Your task to perform on an android device: Turn off the flashlight Image 0: 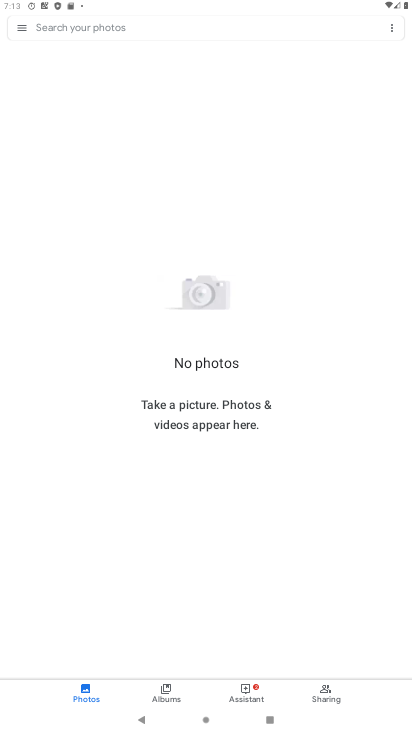
Step 0: press home button
Your task to perform on an android device: Turn off the flashlight Image 1: 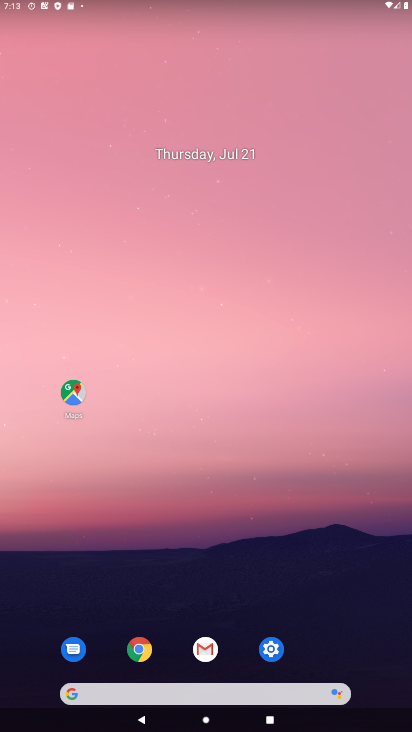
Step 1: click (253, 651)
Your task to perform on an android device: Turn off the flashlight Image 2: 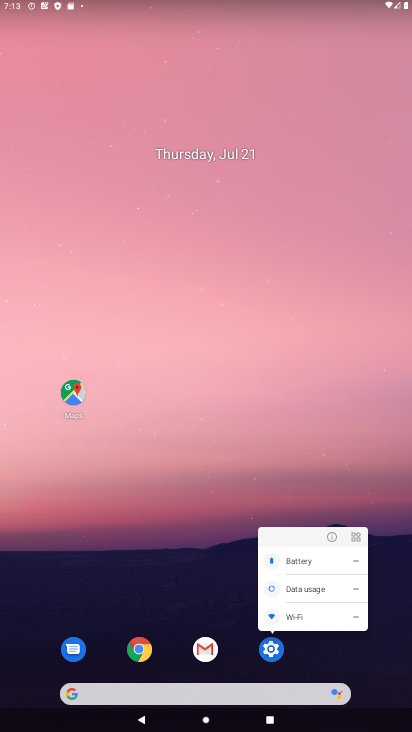
Step 2: click (270, 649)
Your task to perform on an android device: Turn off the flashlight Image 3: 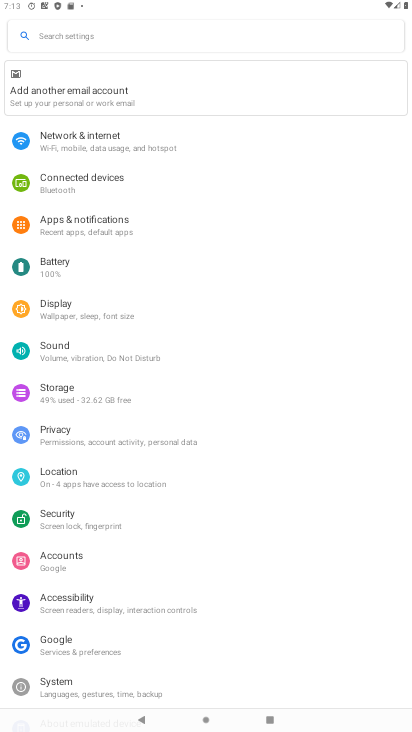
Step 3: click (62, 39)
Your task to perform on an android device: Turn off the flashlight Image 4: 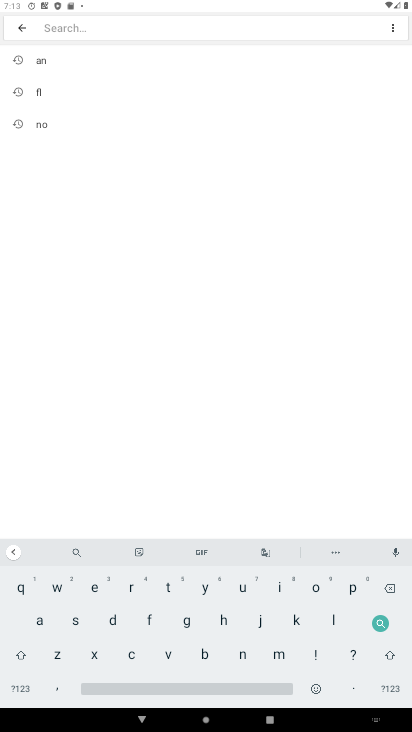
Step 4: click (147, 623)
Your task to perform on an android device: Turn off the flashlight Image 5: 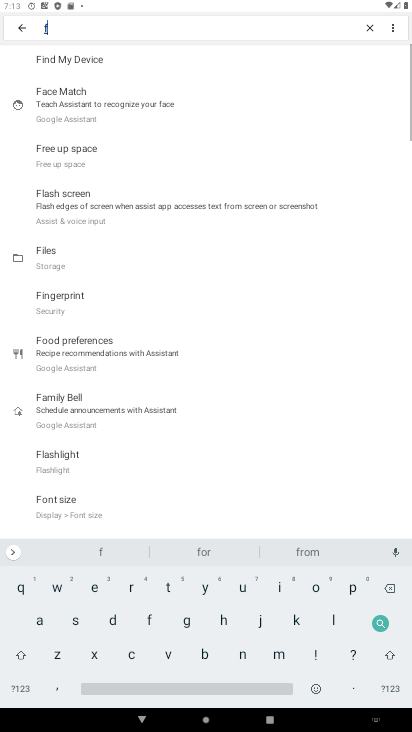
Step 5: click (339, 614)
Your task to perform on an android device: Turn off the flashlight Image 6: 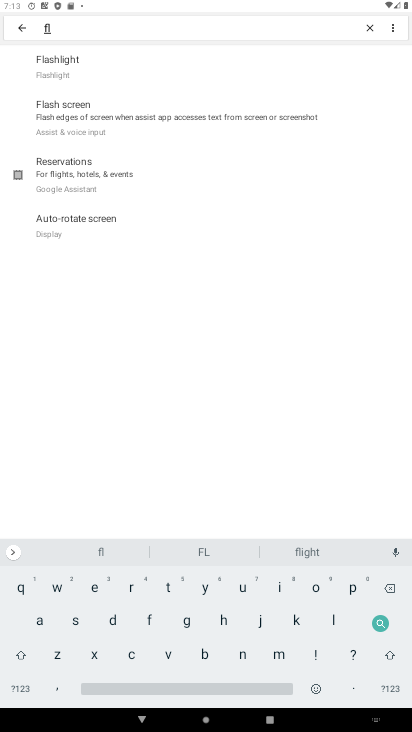
Step 6: click (69, 63)
Your task to perform on an android device: Turn off the flashlight Image 7: 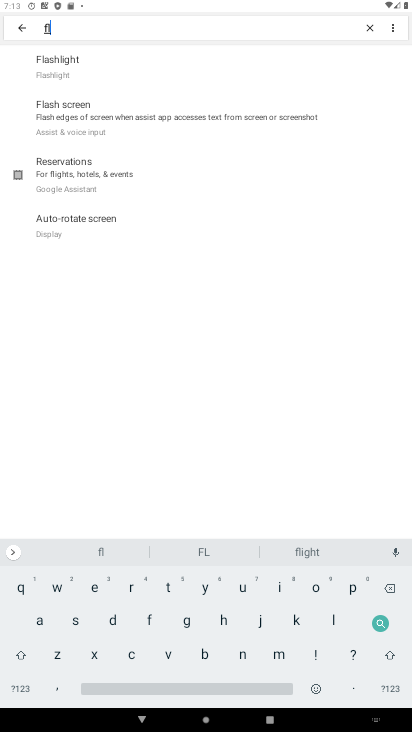
Step 7: task complete